Your task to perform on an android device: turn off wifi Image 0: 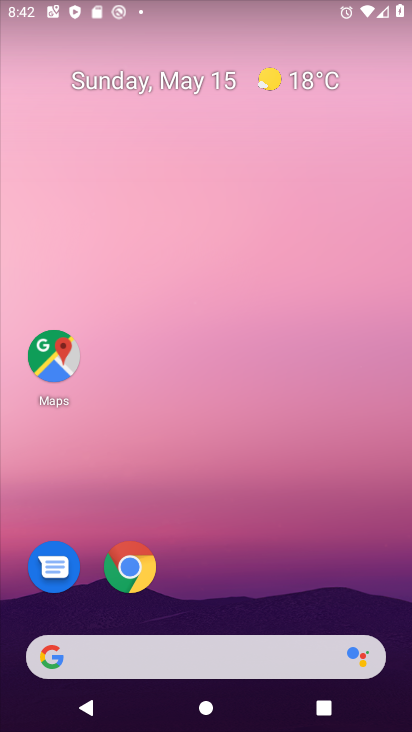
Step 0: drag from (247, 722) to (253, 50)
Your task to perform on an android device: turn off wifi Image 1: 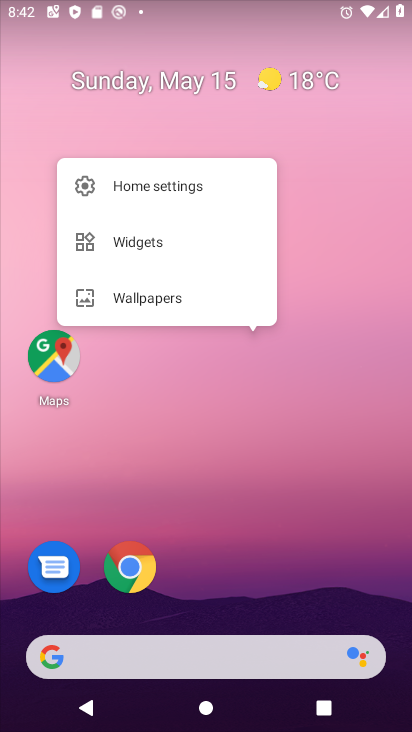
Step 1: click (223, 525)
Your task to perform on an android device: turn off wifi Image 2: 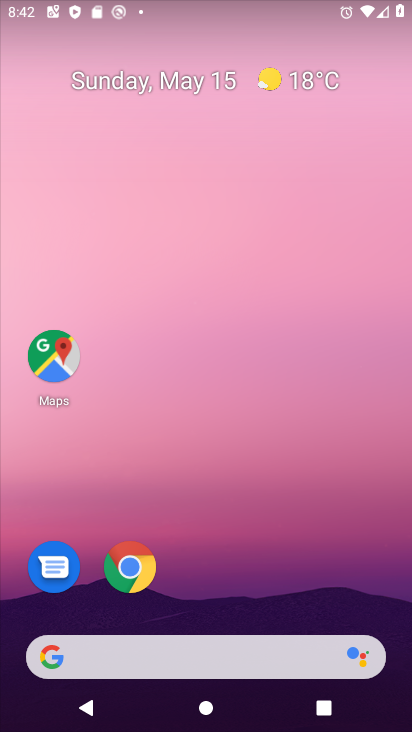
Step 2: drag from (285, 719) to (312, 57)
Your task to perform on an android device: turn off wifi Image 3: 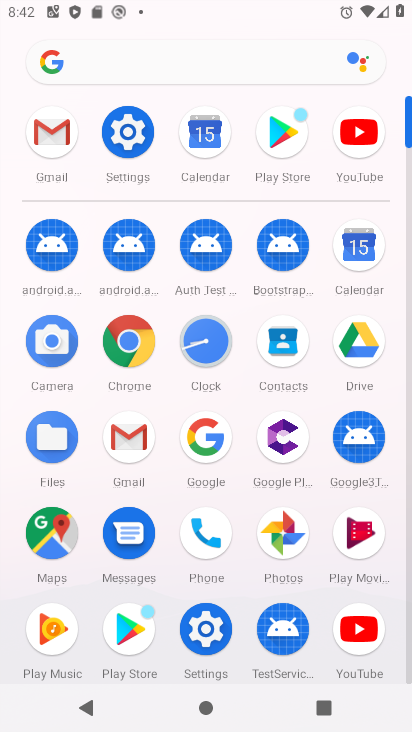
Step 3: click (137, 131)
Your task to perform on an android device: turn off wifi Image 4: 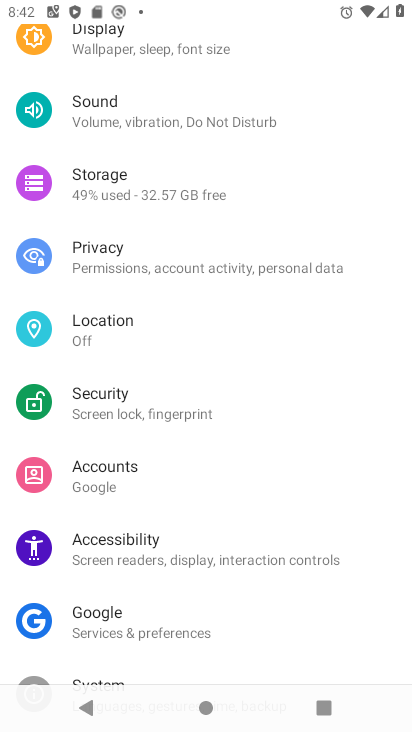
Step 4: drag from (303, 117) to (242, 500)
Your task to perform on an android device: turn off wifi Image 5: 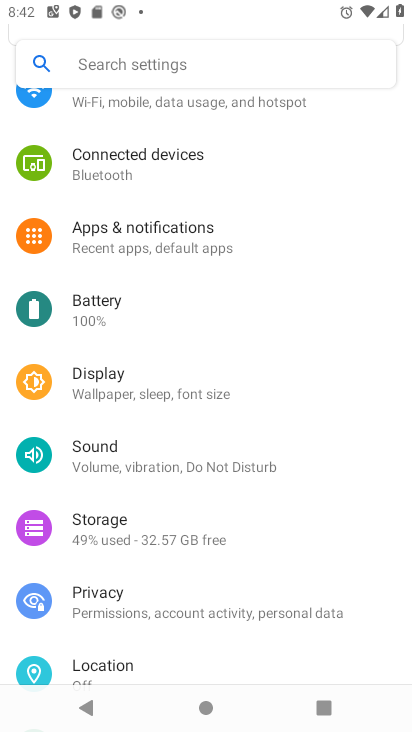
Step 5: click (220, 120)
Your task to perform on an android device: turn off wifi Image 6: 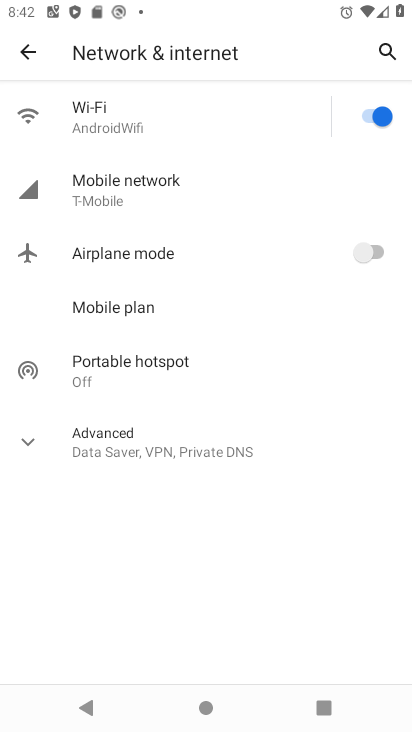
Step 6: click (370, 119)
Your task to perform on an android device: turn off wifi Image 7: 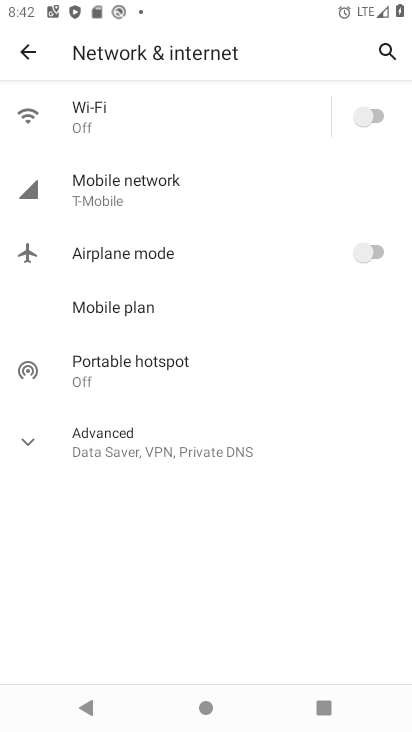
Step 7: task complete